Your task to perform on an android device: Go to privacy settings Image 0: 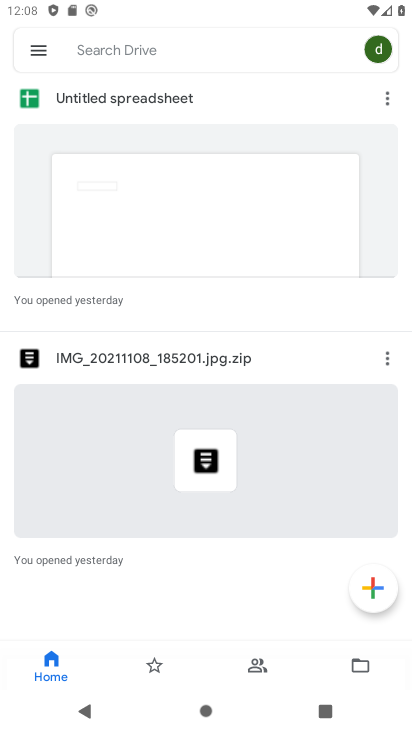
Step 0: press home button
Your task to perform on an android device: Go to privacy settings Image 1: 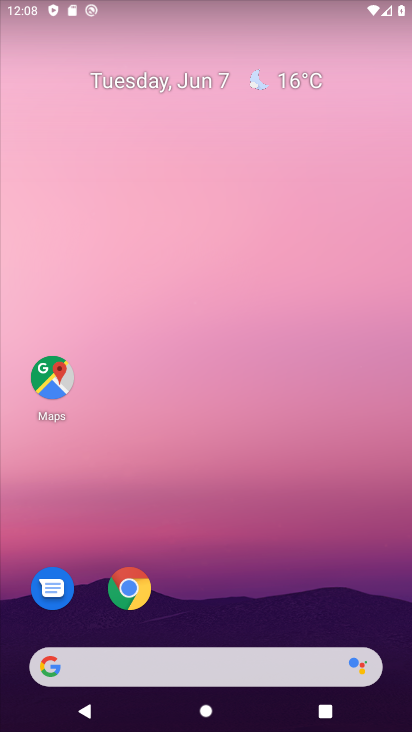
Step 1: drag from (321, 615) to (168, 13)
Your task to perform on an android device: Go to privacy settings Image 2: 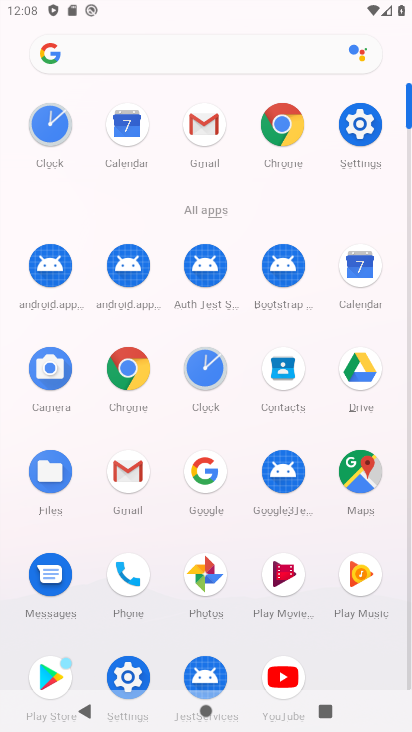
Step 2: click (361, 139)
Your task to perform on an android device: Go to privacy settings Image 3: 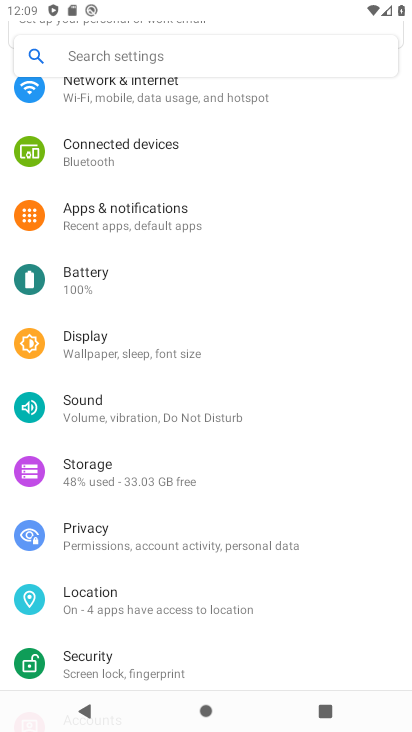
Step 3: click (234, 557)
Your task to perform on an android device: Go to privacy settings Image 4: 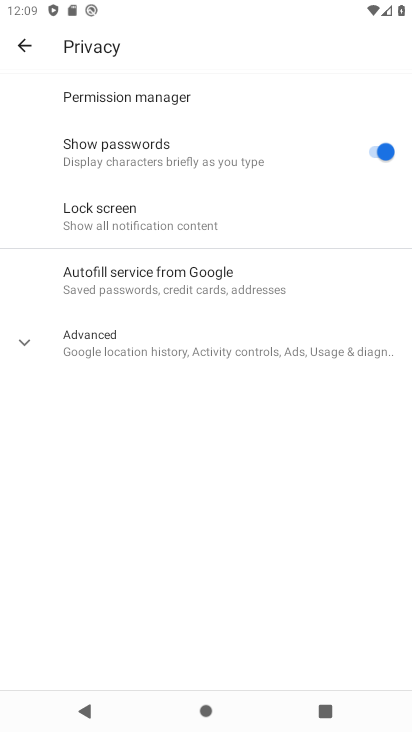
Step 4: task complete